Your task to perform on an android device: Go to Reddit.com Image 0: 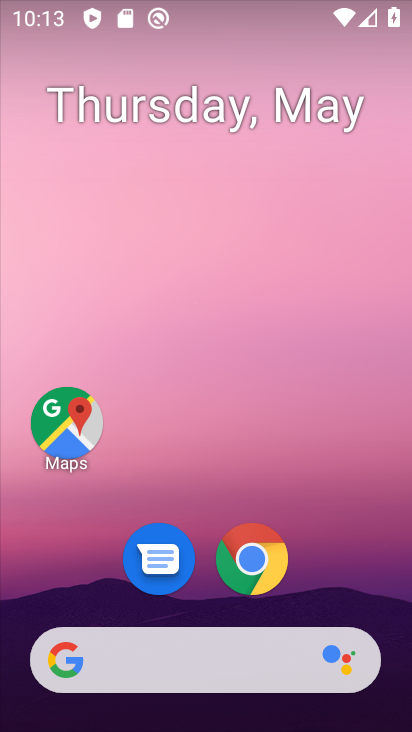
Step 0: click (284, 573)
Your task to perform on an android device: Go to Reddit.com Image 1: 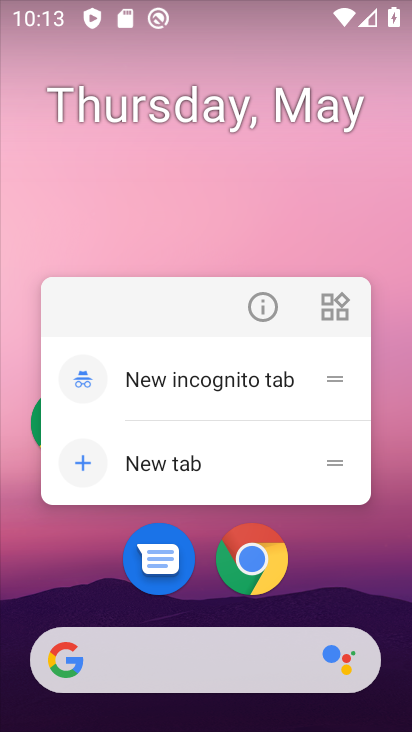
Step 1: click (270, 559)
Your task to perform on an android device: Go to Reddit.com Image 2: 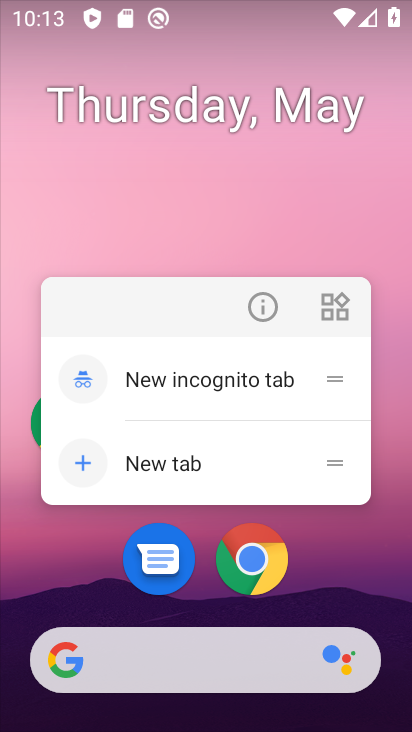
Step 2: click (270, 559)
Your task to perform on an android device: Go to Reddit.com Image 3: 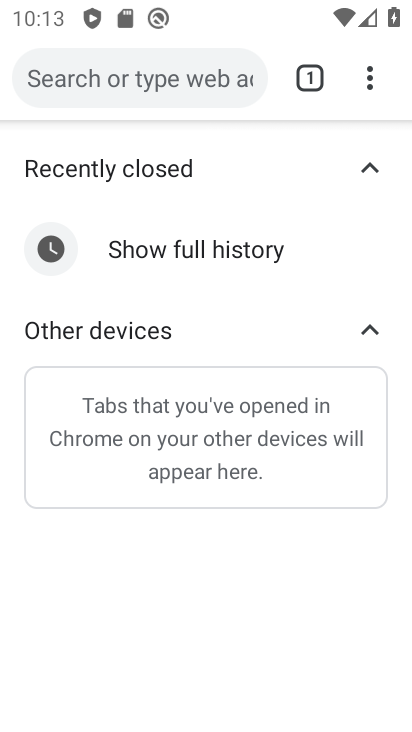
Step 3: click (215, 85)
Your task to perform on an android device: Go to Reddit.com Image 4: 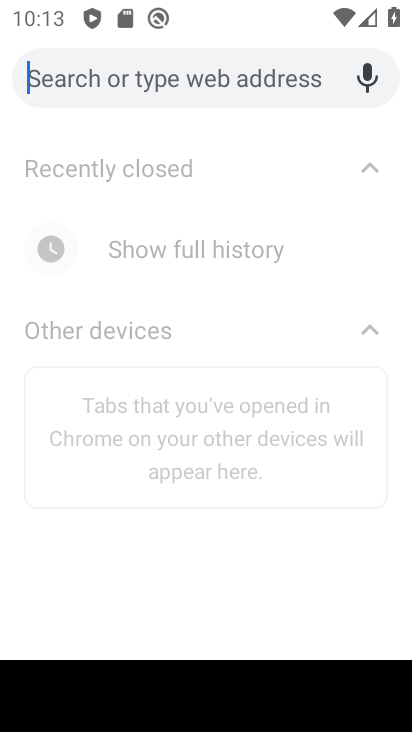
Step 4: type "reddit.com"
Your task to perform on an android device: Go to Reddit.com Image 5: 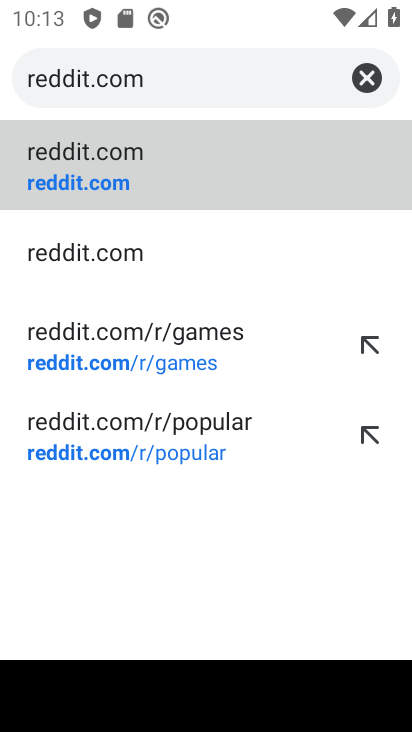
Step 5: click (96, 169)
Your task to perform on an android device: Go to Reddit.com Image 6: 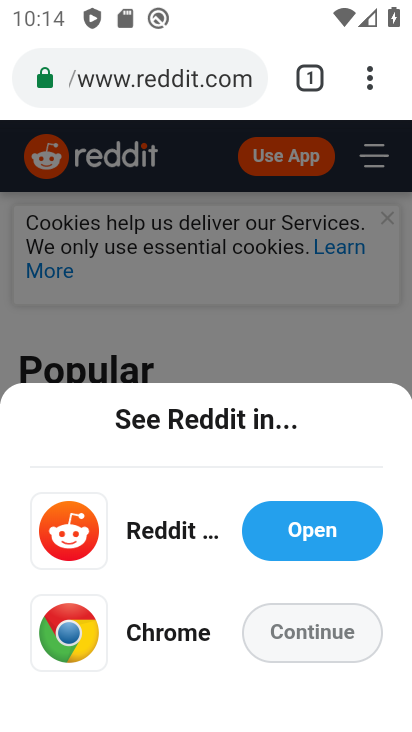
Step 6: task complete